Your task to perform on an android device: Search for a new perfume Image 0: 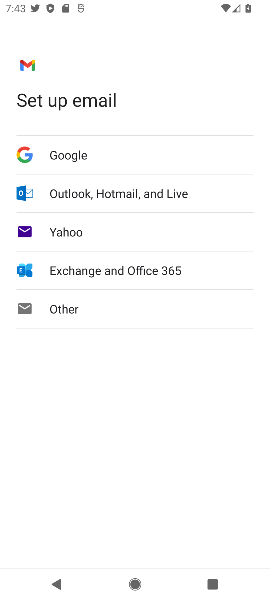
Step 0: press home button
Your task to perform on an android device: Search for a new perfume Image 1: 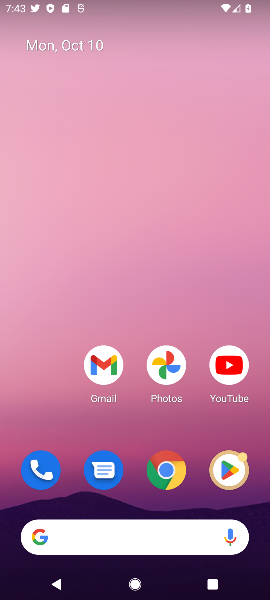
Step 1: click (155, 470)
Your task to perform on an android device: Search for a new perfume Image 2: 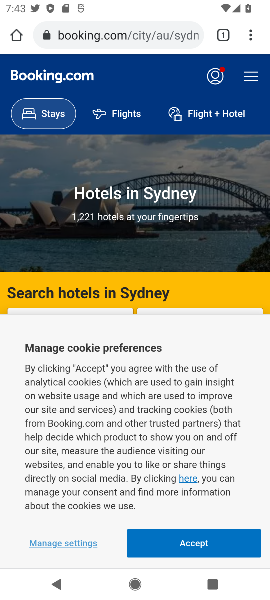
Step 2: click (121, 33)
Your task to perform on an android device: Search for a new perfume Image 3: 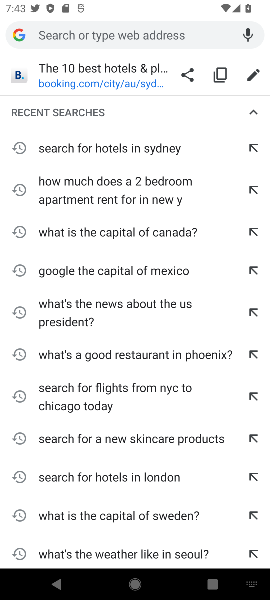
Step 3: type "Search for a new perfume"
Your task to perform on an android device: Search for a new perfume Image 4: 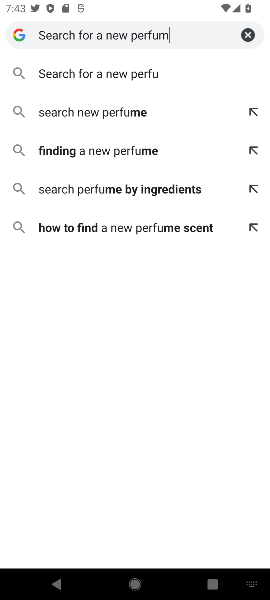
Step 4: type ""
Your task to perform on an android device: Search for a new perfume Image 5: 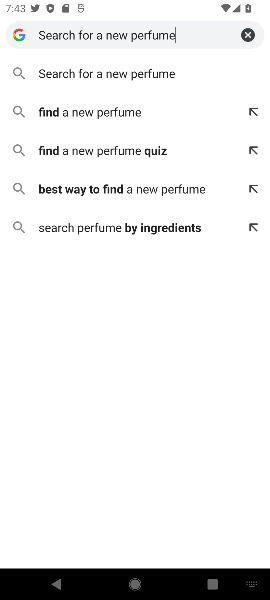
Step 5: click (59, 65)
Your task to perform on an android device: Search for a new perfume Image 6: 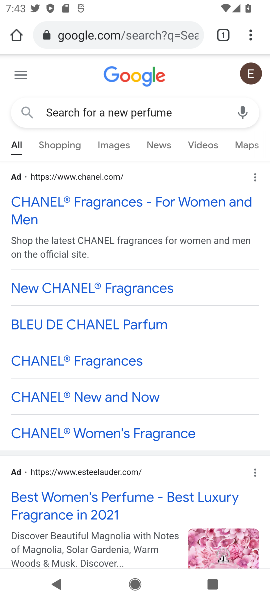
Step 6: drag from (62, 539) to (109, 100)
Your task to perform on an android device: Search for a new perfume Image 7: 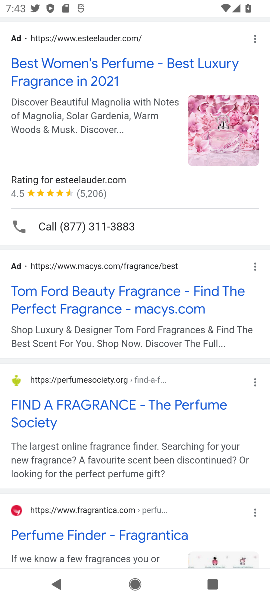
Step 7: click (95, 410)
Your task to perform on an android device: Search for a new perfume Image 8: 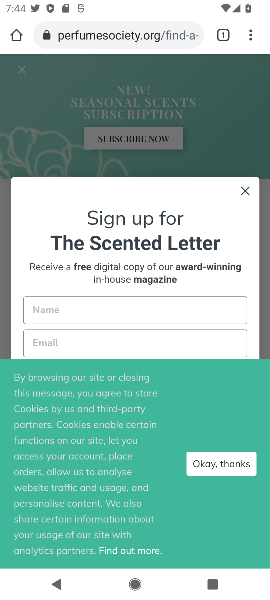
Step 8: click (246, 192)
Your task to perform on an android device: Search for a new perfume Image 9: 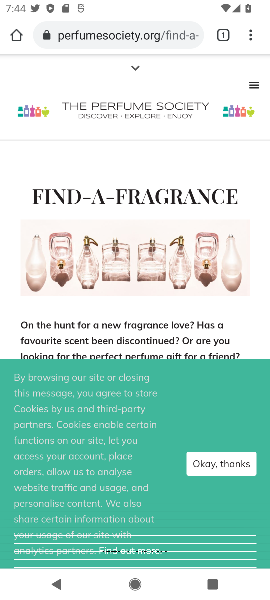
Step 9: click (212, 473)
Your task to perform on an android device: Search for a new perfume Image 10: 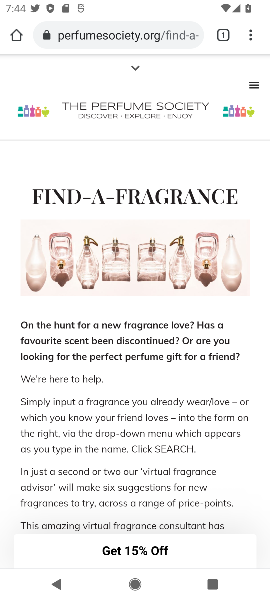
Step 10: task complete